Your task to perform on an android device: Search for vegetarian restaurants on Maps Image 0: 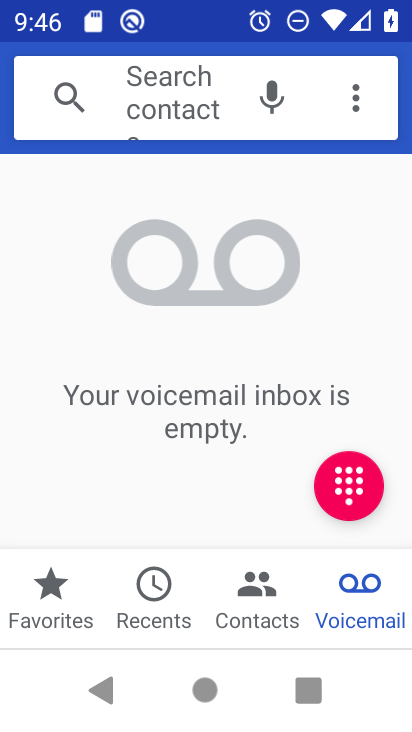
Step 0: press home button
Your task to perform on an android device: Search for vegetarian restaurants on Maps Image 1: 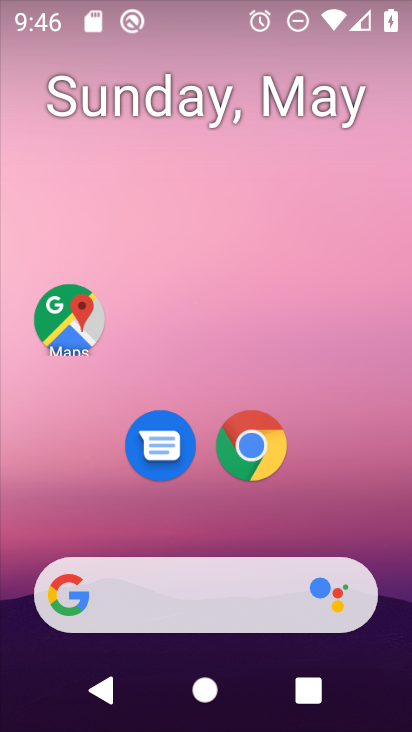
Step 1: click (80, 336)
Your task to perform on an android device: Search for vegetarian restaurants on Maps Image 2: 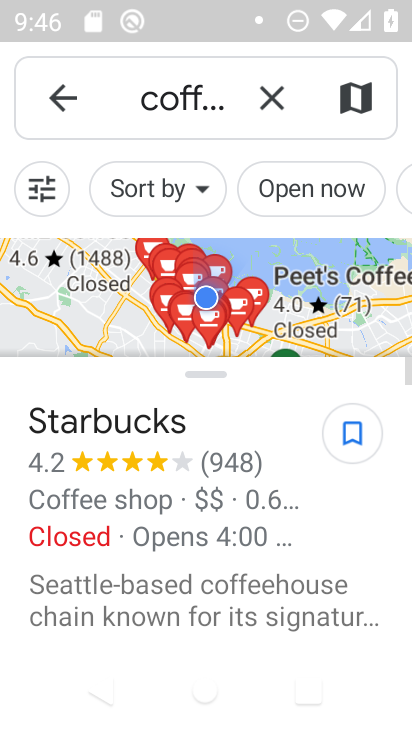
Step 2: click (266, 93)
Your task to perform on an android device: Search for vegetarian restaurants on Maps Image 3: 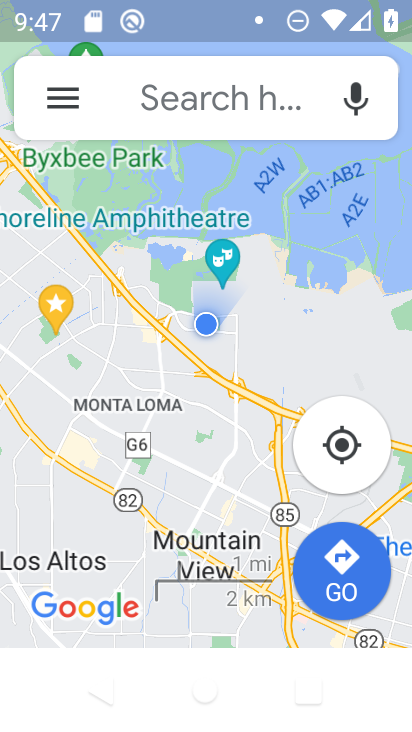
Step 3: click (221, 104)
Your task to perform on an android device: Search for vegetarian restaurants on Maps Image 4: 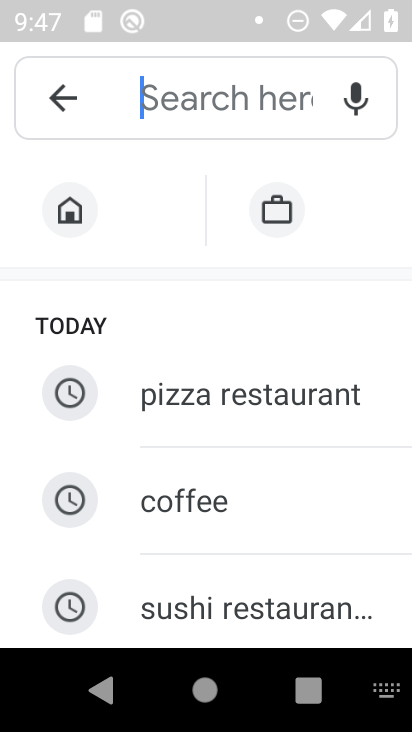
Step 4: type "vegetarian restaurants"
Your task to perform on an android device: Search for vegetarian restaurants on Maps Image 5: 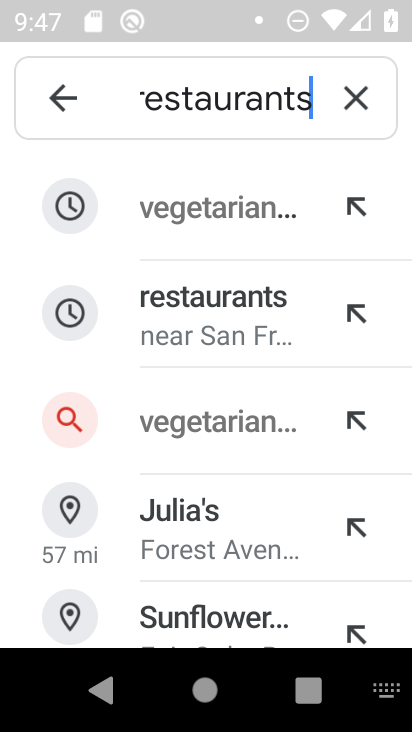
Step 5: click (235, 223)
Your task to perform on an android device: Search for vegetarian restaurants on Maps Image 6: 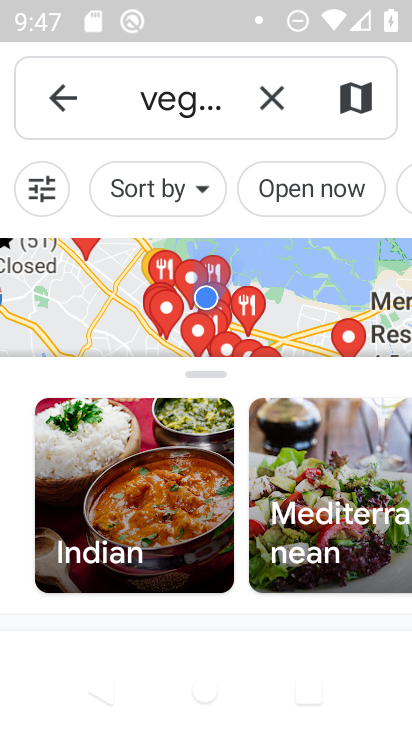
Step 6: click (231, 222)
Your task to perform on an android device: Search for vegetarian restaurants on Maps Image 7: 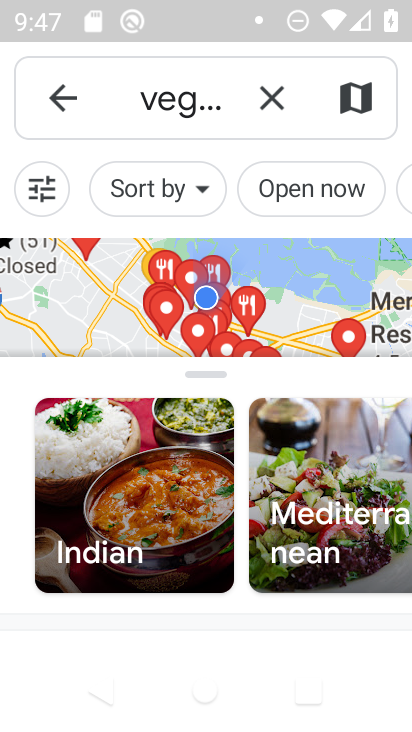
Step 7: task complete